Your task to perform on an android device: toggle priority inbox in the gmail app Image 0: 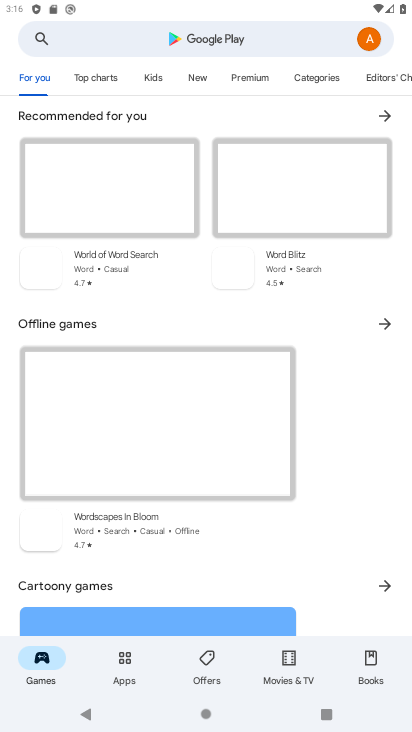
Step 0: press home button
Your task to perform on an android device: toggle priority inbox in the gmail app Image 1: 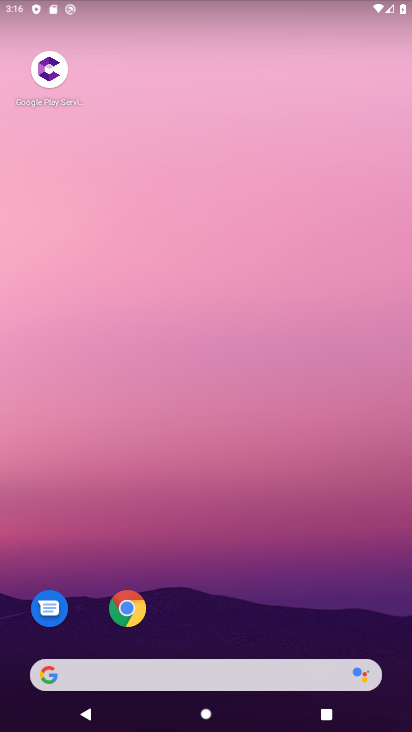
Step 1: drag from (255, 594) to (300, 59)
Your task to perform on an android device: toggle priority inbox in the gmail app Image 2: 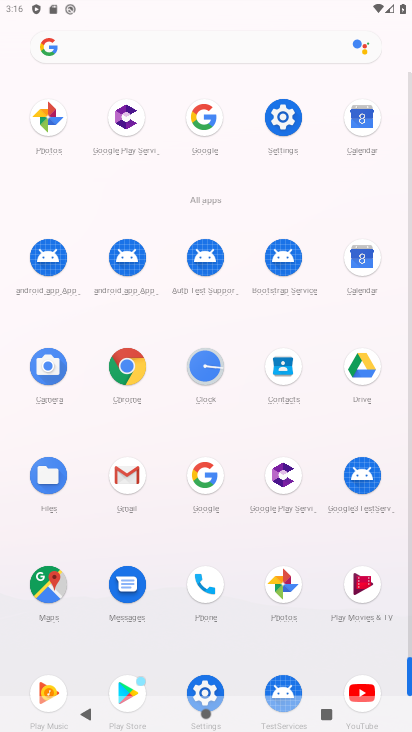
Step 2: click (124, 469)
Your task to perform on an android device: toggle priority inbox in the gmail app Image 3: 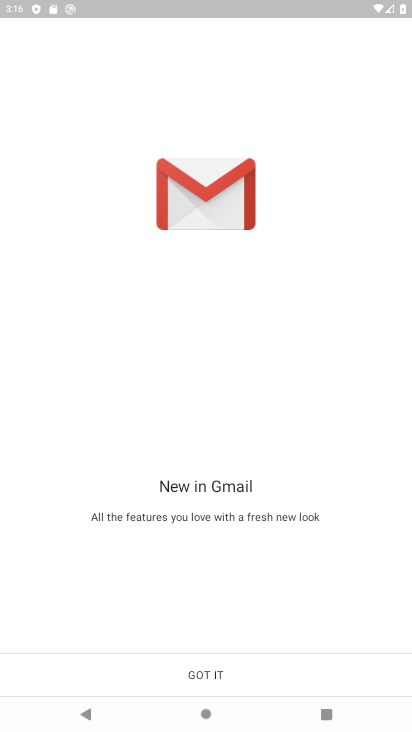
Step 3: click (184, 665)
Your task to perform on an android device: toggle priority inbox in the gmail app Image 4: 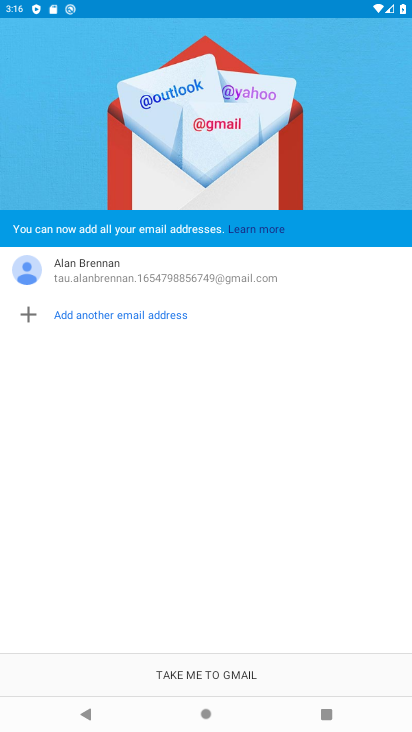
Step 4: click (184, 665)
Your task to perform on an android device: toggle priority inbox in the gmail app Image 5: 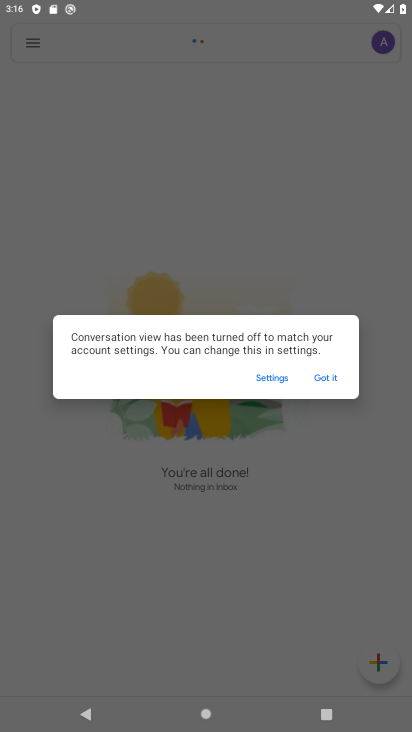
Step 5: click (335, 376)
Your task to perform on an android device: toggle priority inbox in the gmail app Image 6: 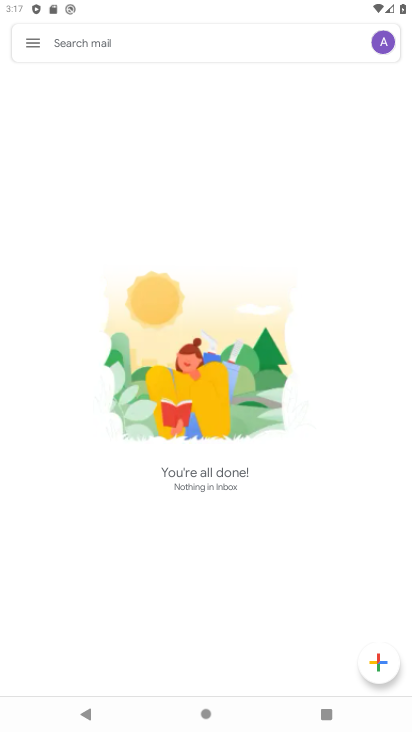
Step 6: click (44, 43)
Your task to perform on an android device: toggle priority inbox in the gmail app Image 7: 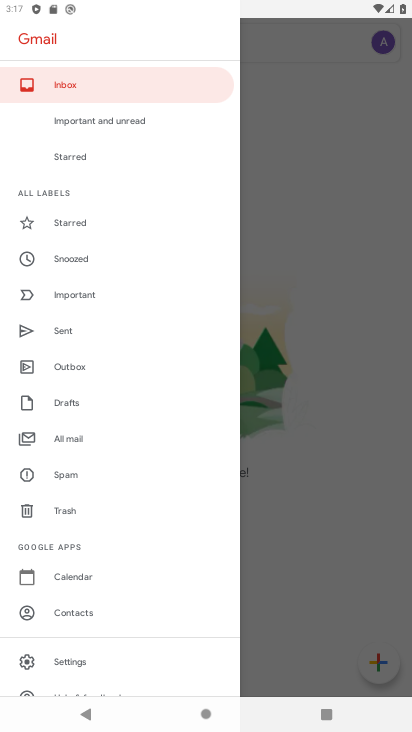
Step 7: click (56, 654)
Your task to perform on an android device: toggle priority inbox in the gmail app Image 8: 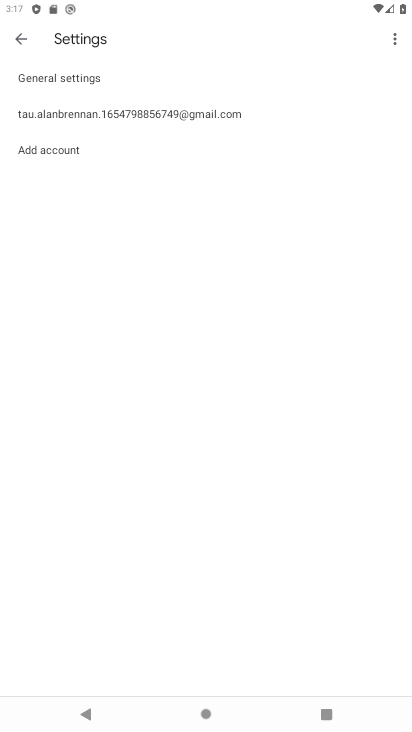
Step 8: click (111, 113)
Your task to perform on an android device: toggle priority inbox in the gmail app Image 9: 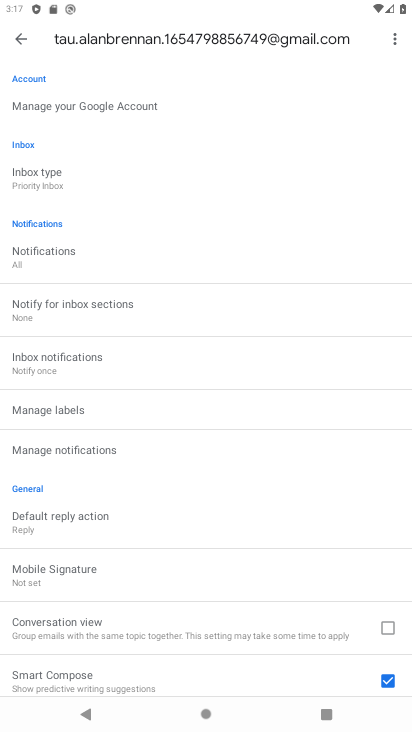
Step 9: click (31, 167)
Your task to perform on an android device: toggle priority inbox in the gmail app Image 10: 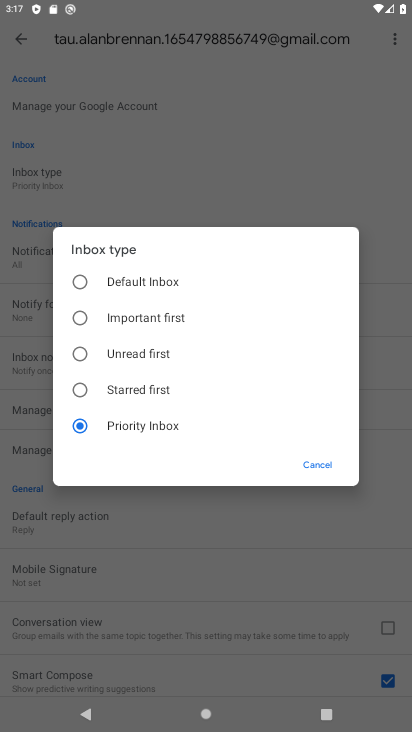
Step 10: click (130, 282)
Your task to perform on an android device: toggle priority inbox in the gmail app Image 11: 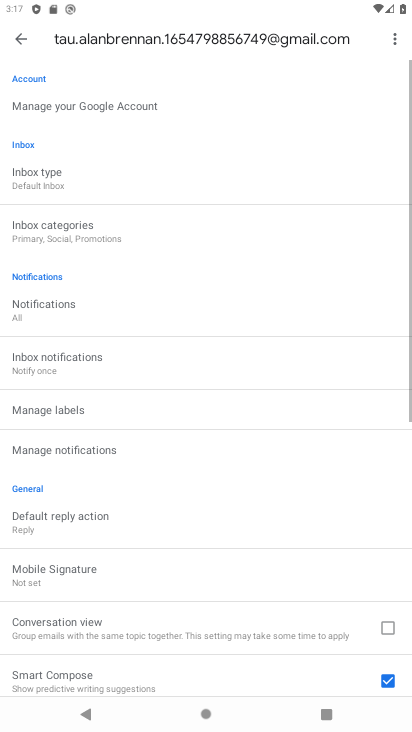
Step 11: task complete